Your task to perform on an android device: allow notifications from all sites in the chrome app Image 0: 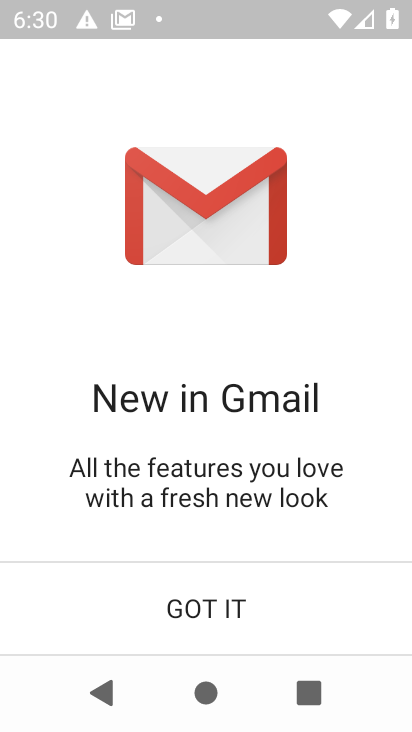
Step 0: task complete